Your task to perform on an android device: What's the weather? Image 0: 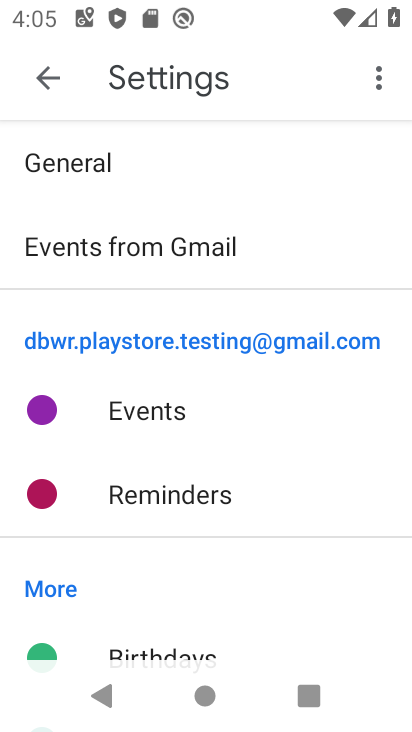
Step 0: press home button
Your task to perform on an android device: What's the weather? Image 1: 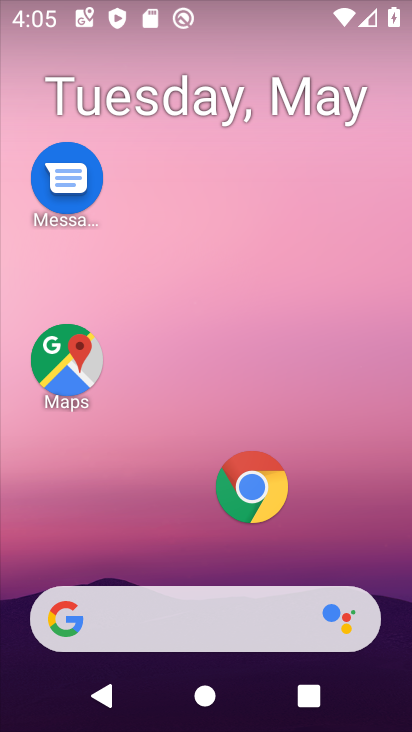
Step 1: drag from (233, 438) to (289, 0)
Your task to perform on an android device: What's the weather? Image 2: 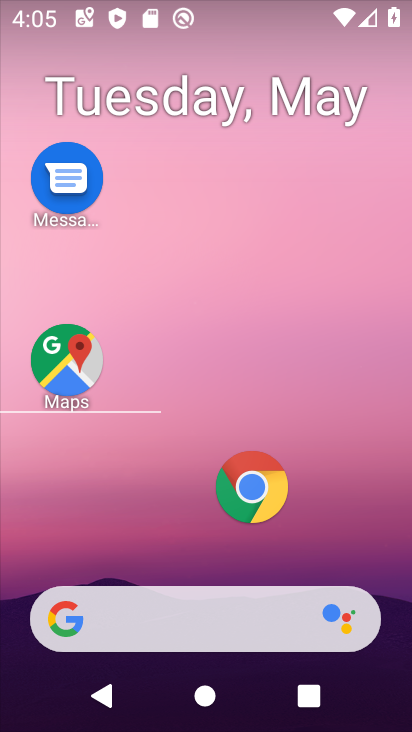
Step 2: click (230, 535)
Your task to perform on an android device: What's the weather? Image 3: 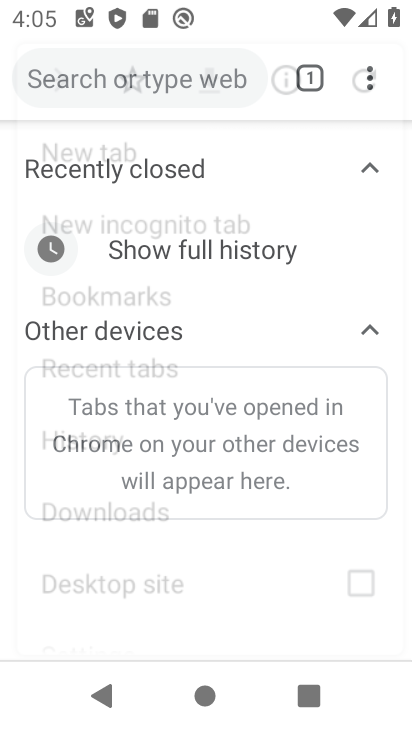
Step 3: click (209, 0)
Your task to perform on an android device: What's the weather? Image 4: 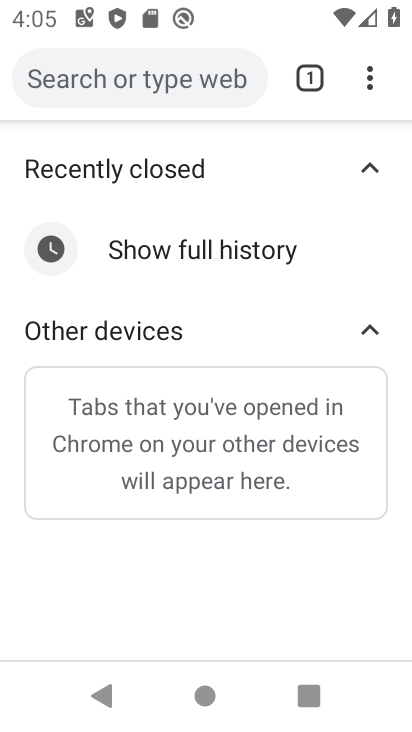
Step 4: press home button
Your task to perform on an android device: What's the weather? Image 5: 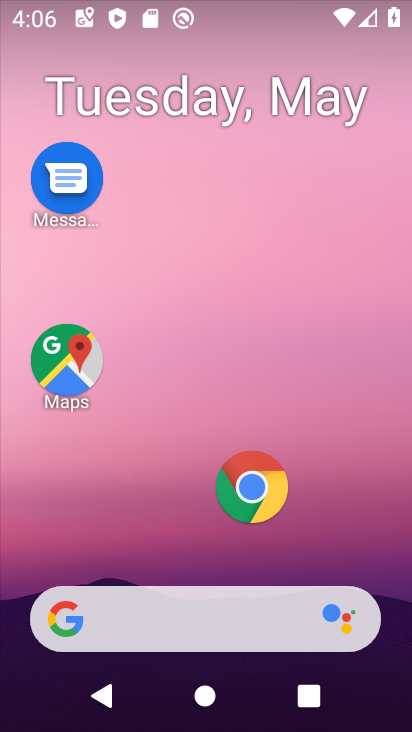
Step 5: click (167, 622)
Your task to perform on an android device: What's the weather? Image 6: 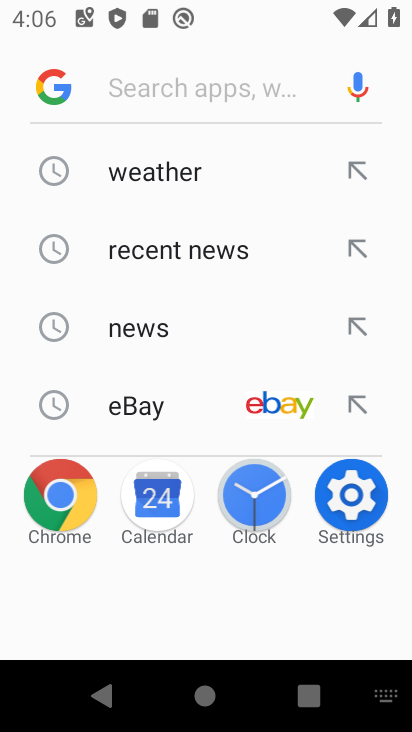
Step 6: click (149, 173)
Your task to perform on an android device: What's the weather? Image 7: 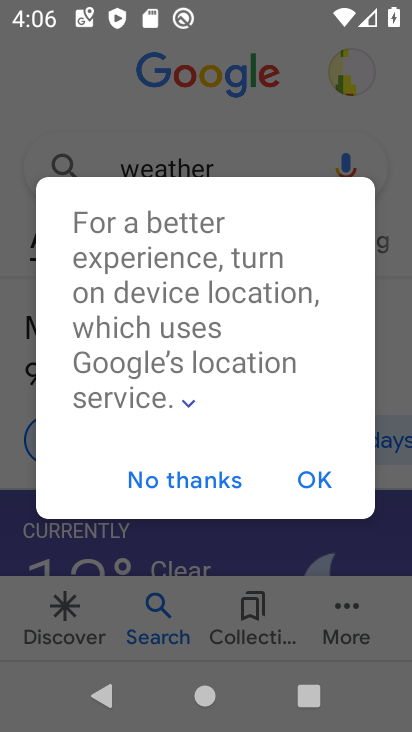
Step 7: click (320, 498)
Your task to perform on an android device: What's the weather? Image 8: 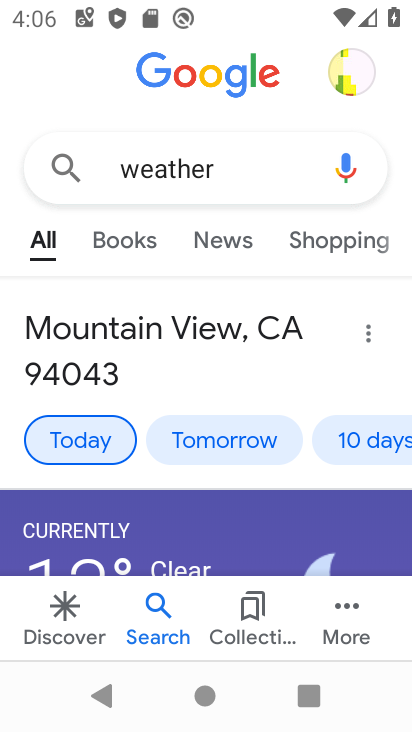
Step 8: task complete